Your task to perform on an android device: Check the news Image 0: 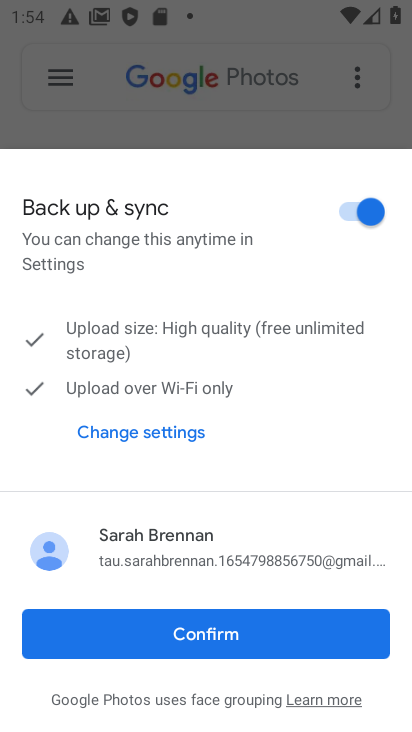
Step 0: press home button
Your task to perform on an android device: Check the news Image 1: 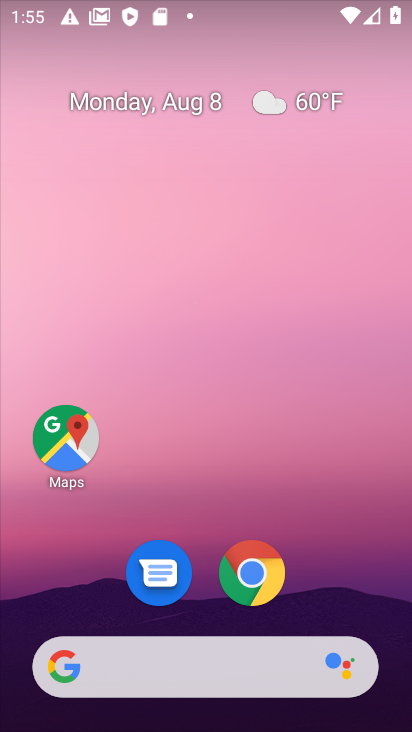
Step 1: click (249, 572)
Your task to perform on an android device: Check the news Image 2: 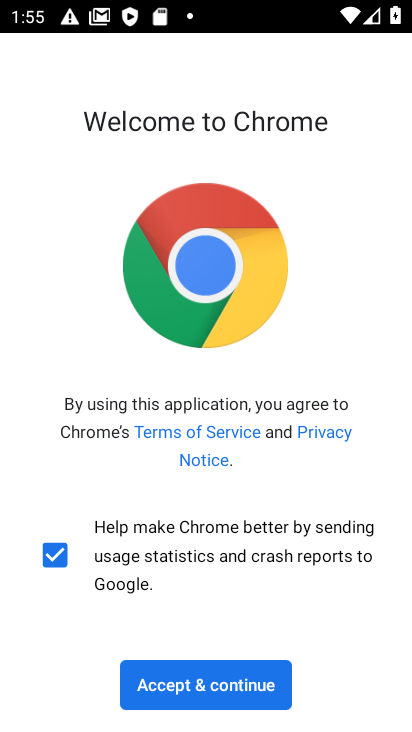
Step 2: click (217, 693)
Your task to perform on an android device: Check the news Image 3: 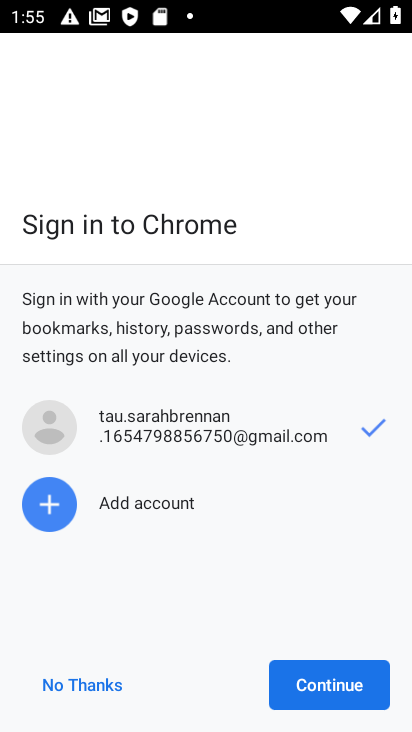
Step 3: click (307, 680)
Your task to perform on an android device: Check the news Image 4: 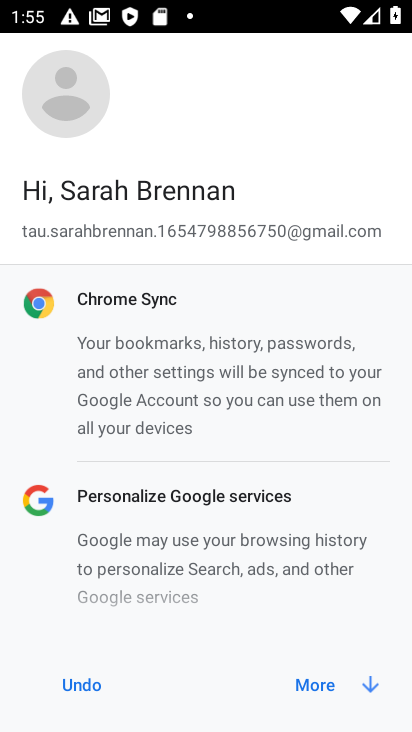
Step 4: click (307, 680)
Your task to perform on an android device: Check the news Image 5: 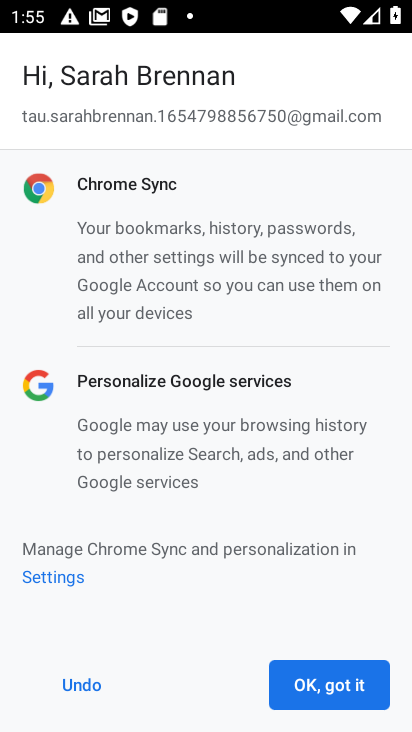
Step 5: click (307, 680)
Your task to perform on an android device: Check the news Image 6: 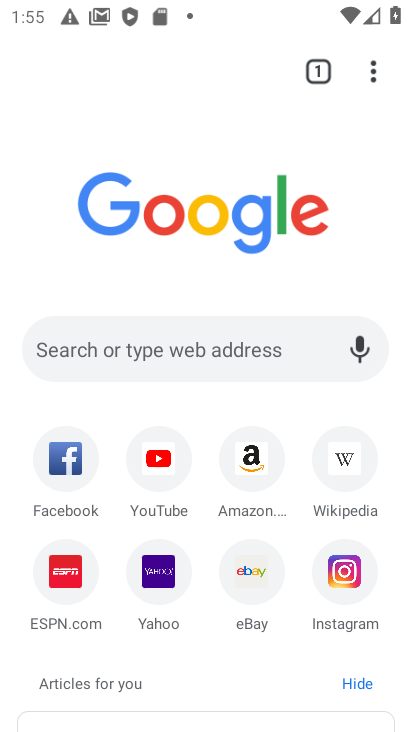
Step 6: click (238, 349)
Your task to perform on an android device: Check the news Image 7: 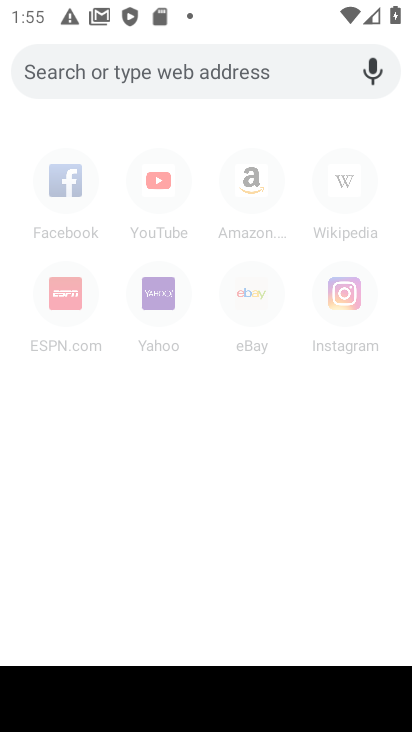
Step 7: type "news"
Your task to perform on an android device: Check the news Image 8: 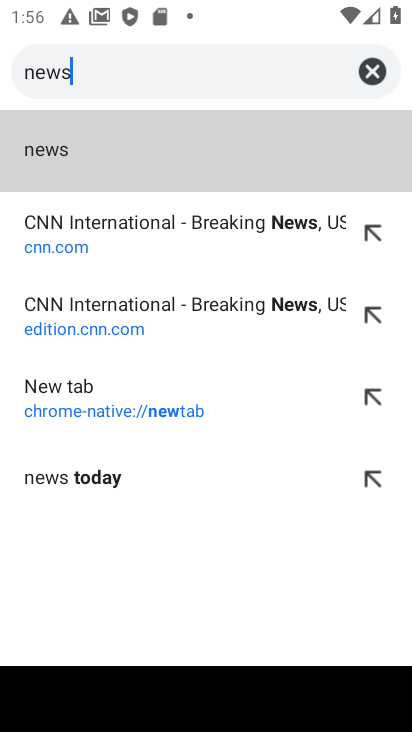
Step 8: type ""
Your task to perform on an android device: Check the news Image 9: 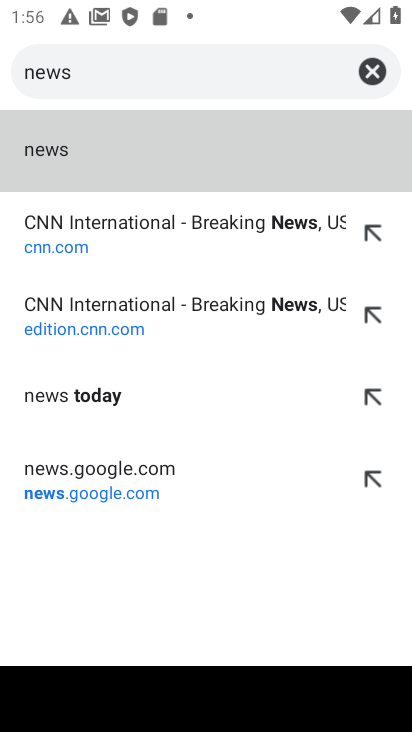
Step 9: click (128, 151)
Your task to perform on an android device: Check the news Image 10: 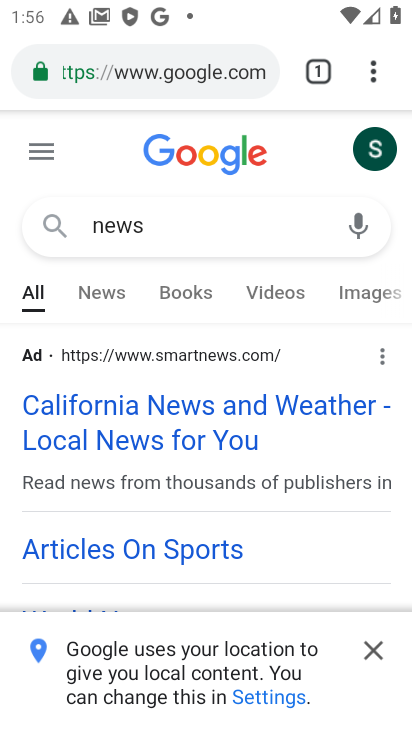
Step 10: drag from (238, 499) to (313, 268)
Your task to perform on an android device: Check the news Image 11: 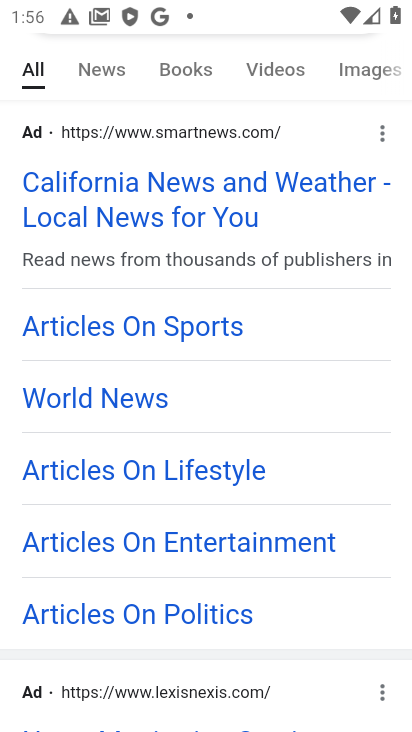
Step 11: drag from (297, 593) to (333, 316)
Your task to perform on an android device: Check the news Image 12: 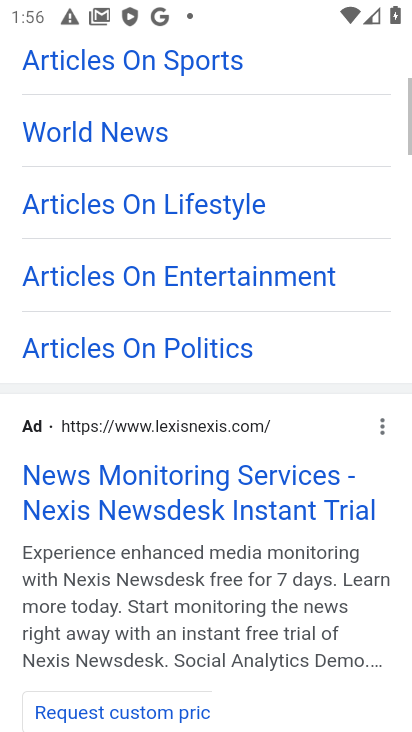
Step 12: drag from (225, 590) to (302, 296)
Your task to perform on an android device: Check the news Image 13: 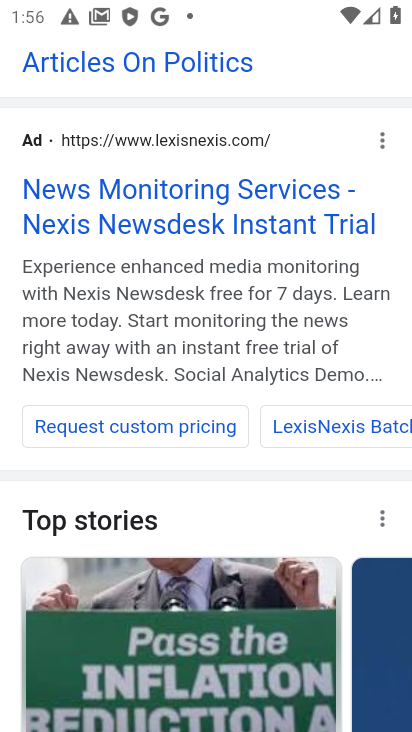
Step 13: drag from (221, 524) to (256, 183)
Your task to perform on an android device: Check the news Image 14: 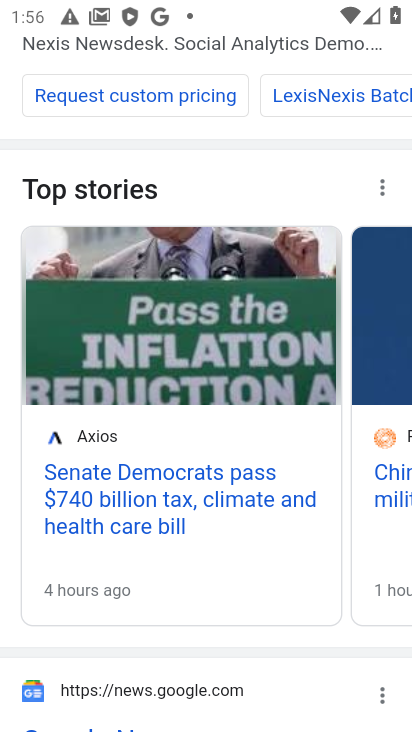
Step 14: drag from (270, 410) to (119, 405)
Your task to perform on an android device: Check the news Image 15: 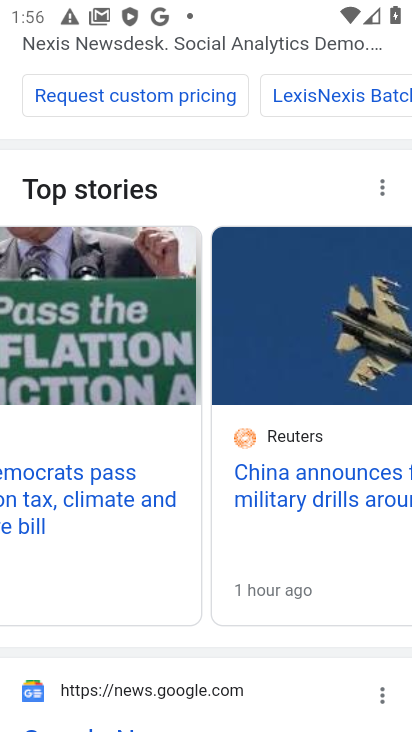
Step 15: drag from (327, 381) to (140, 416)
Your task to perform on an android device: Check the news Image 16: 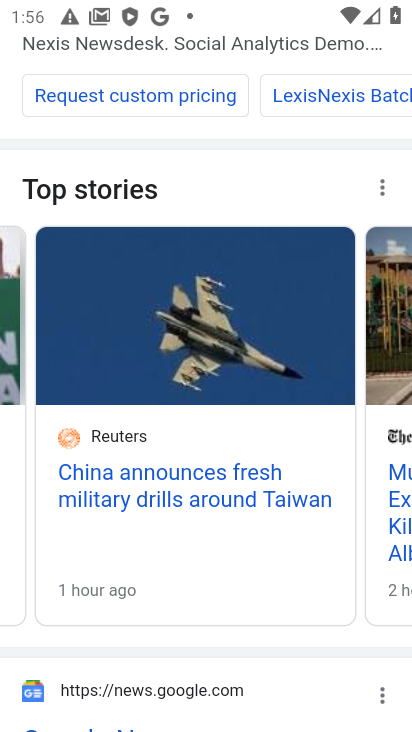
Step 16: click (240, 463)
Your task to perform on an android device: Check the news Image 17: 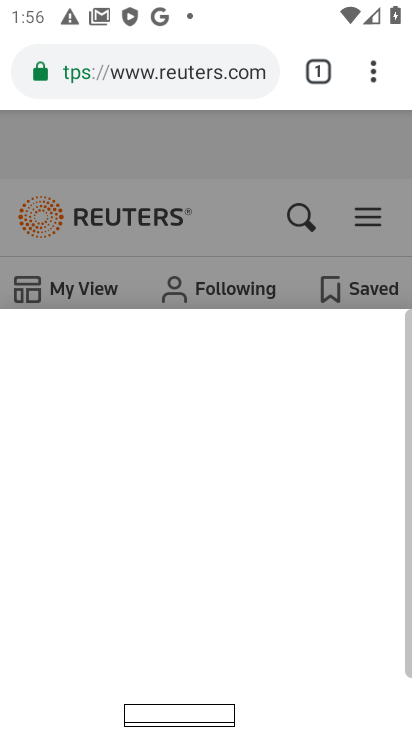
Step 17: task complete